Your task to perform on an android device: Go to calendar. Show me events next week Image 0: 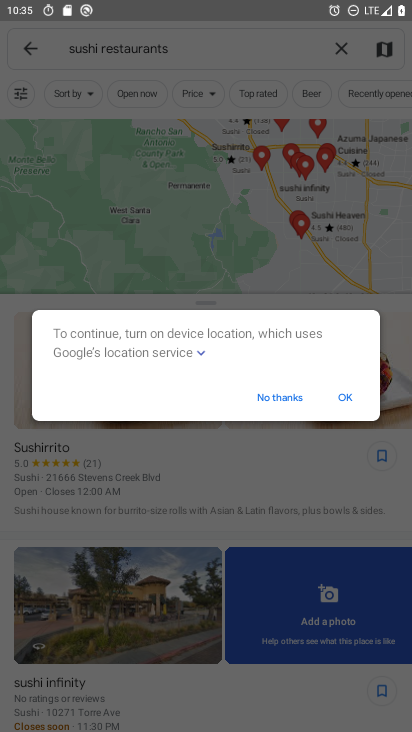
Step 0: press home button
Your task to perform on an android device: Go to calendar. Show me events next week Image 1: 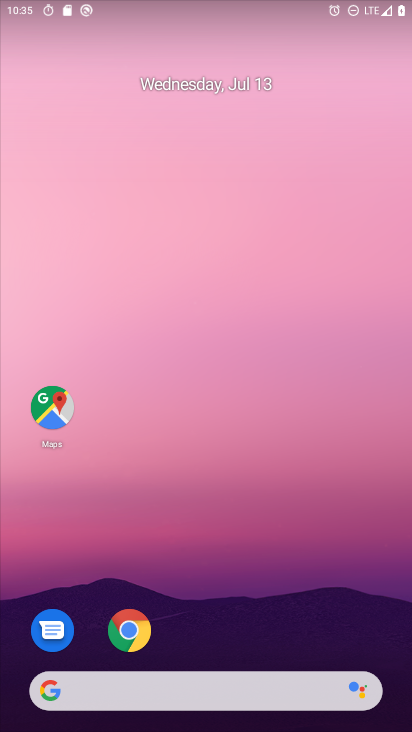
Step 1: drag from (406, 664) to (147, 34)
Your task to perform on an android device: Go to calendar. Show me events next week Image 2: 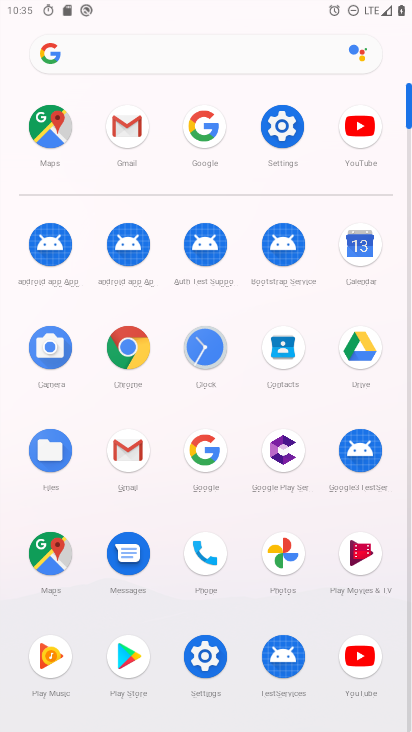
Step 2: click (359, 249)
Your task to perform on an android device: Go to calendar. Show me events next week Image 3: 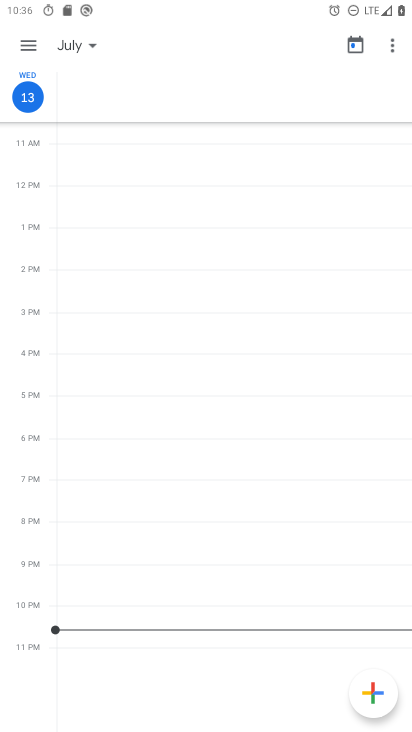
Step 3: task complete